Your task to perform on an android device: Toggle the flashlight Image 0: 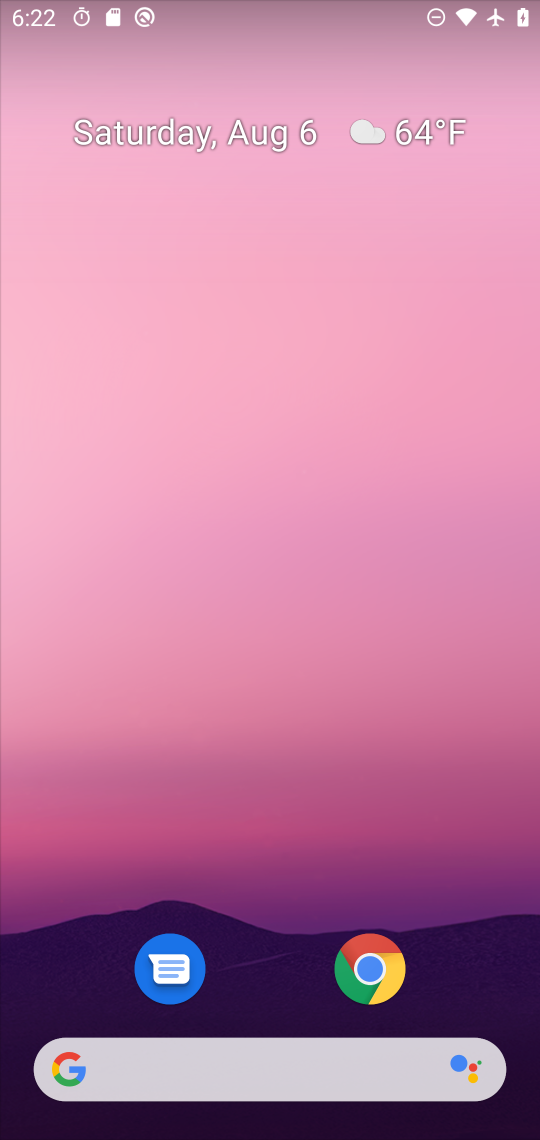
Step 0: press home button
Your task to perform on an android device: Toggle the flashlight Image 1: 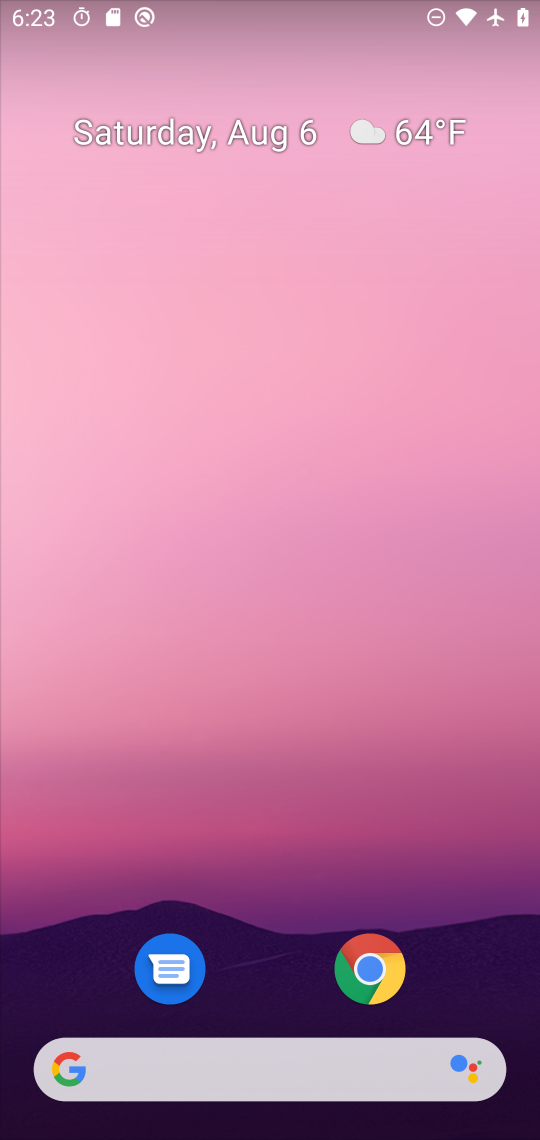
Step 1: press home button
Your task to perform on an android device: Toggle the flashlight Image 2: 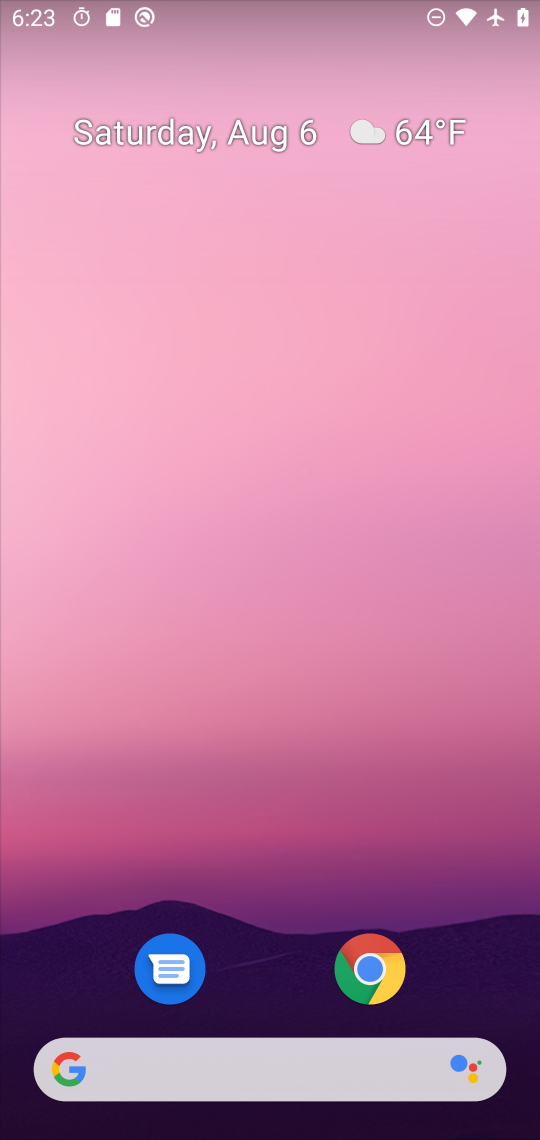
Step 2: click (384, 779)
Your task to perform on an android device: Toggle the flashlight Image 3: 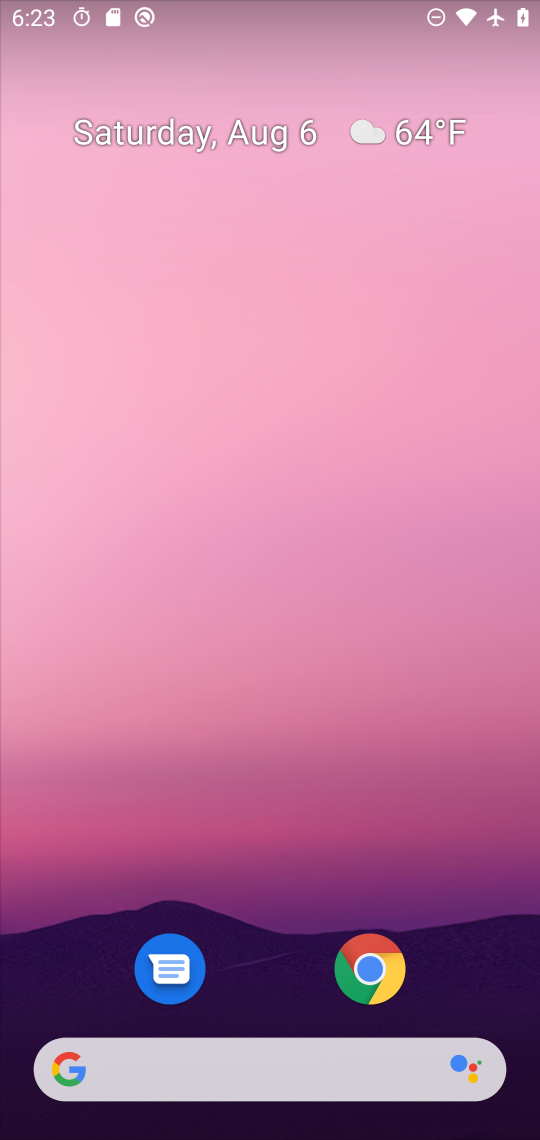
Step 3: task complete